Your task to perform on an android device: turn on translation in the chrome app Image 0: 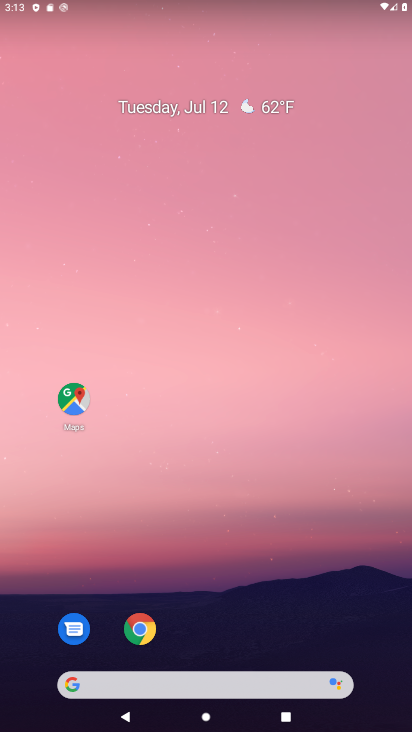
Step 0: drag from (221, 648) to (210, 149)
Your task to perform on an android device: turn on translation in the chrome app Image 1: 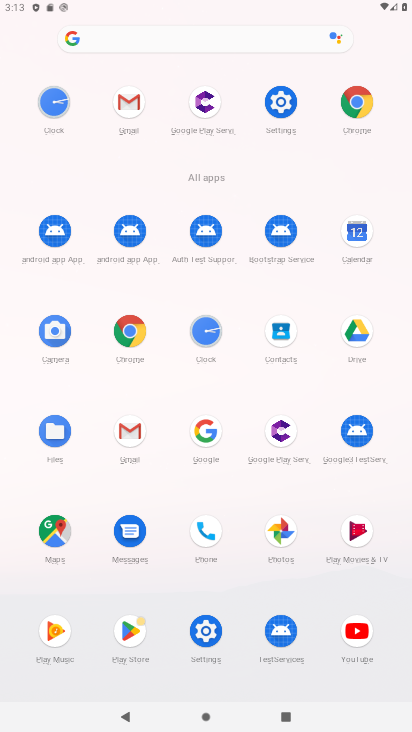
Step 1: click (133, 313)
Your task to perform on an android device: turn on translation in the chrome app Image 2: 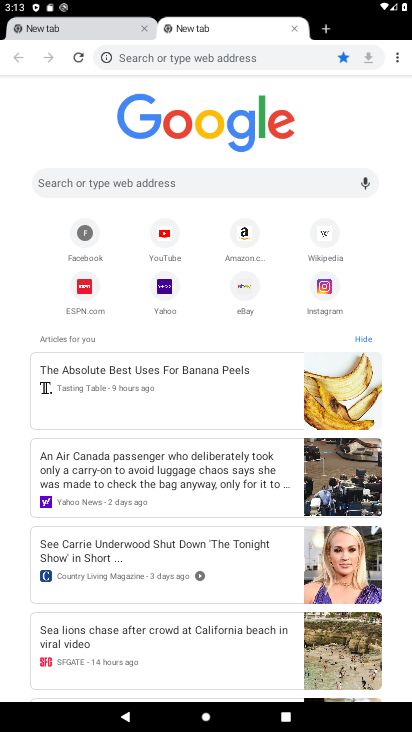
Step 2: drag from (396, 61) to (280, 261)
Your task to perform on an android device: turn on translation in the chrome app Image 3: 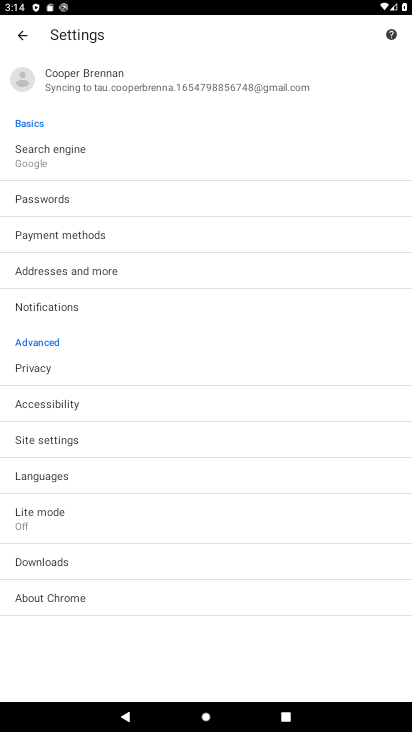
Step 3: click (55, 473)
Your task to perform on an android device: turn on translation in the chrome app Image 4: 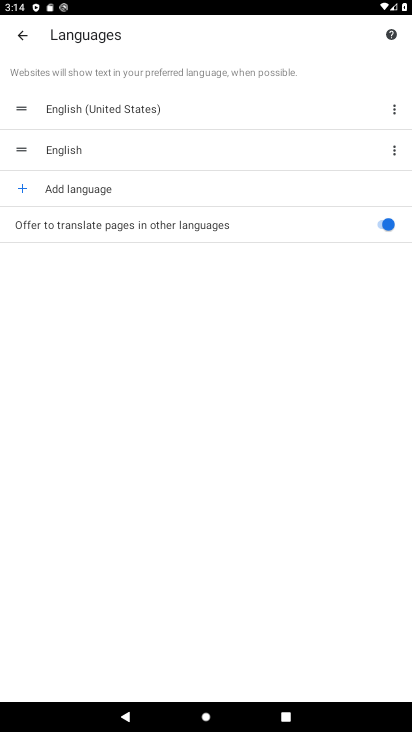
Step 4: task complete